Your task to perform on an android device: turn on notifications settings in the gmail app Image 0: 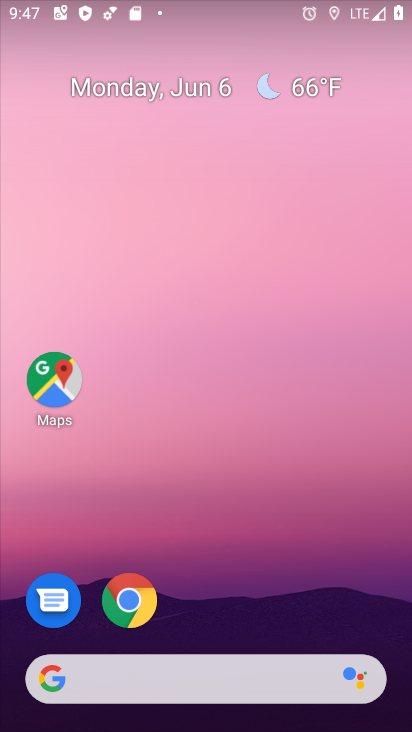
Step 0: drag from (36, 684) to (285, 183)
Your task to perform on an android device: turn on notifications settings in the gmail app Image 1: 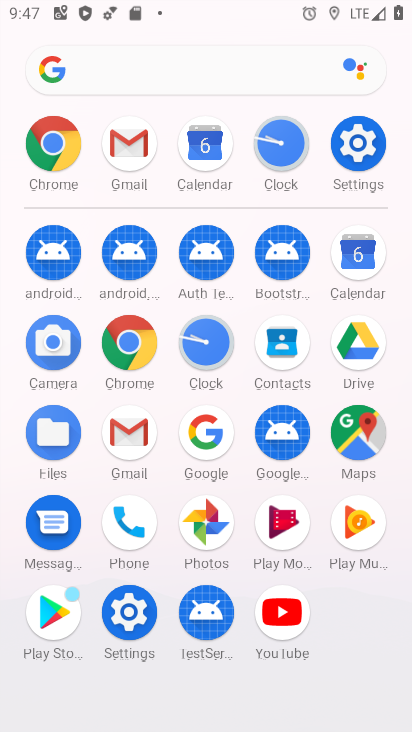
Step 1: click (129, 146)
Your task to perform on an android device: turn on notifications settings in the gmail app Image 2: 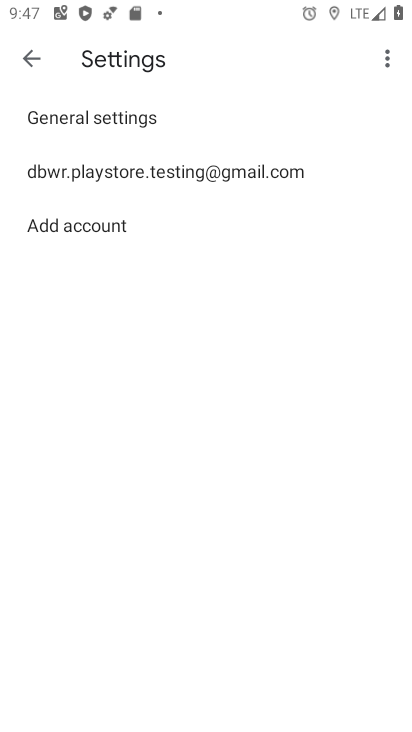
Step 2: click (137, 175)
Your task to perform on an android device: turn on notifications settings in the gmail app Image 3: 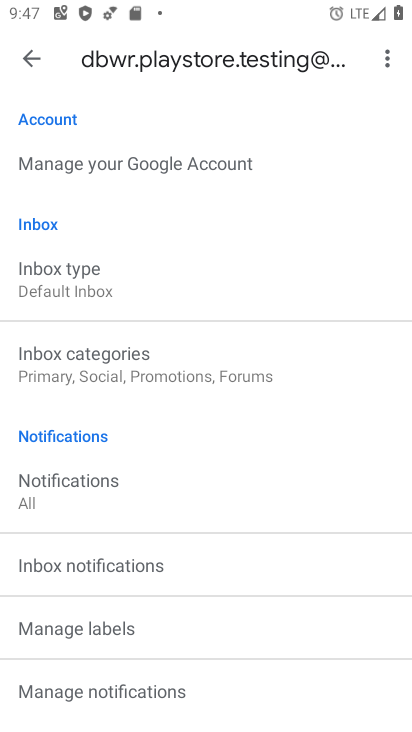
Step 3: click (139, 695)
Your task to perform on an android device: turn on notifications settings in the gmail app Image 4: 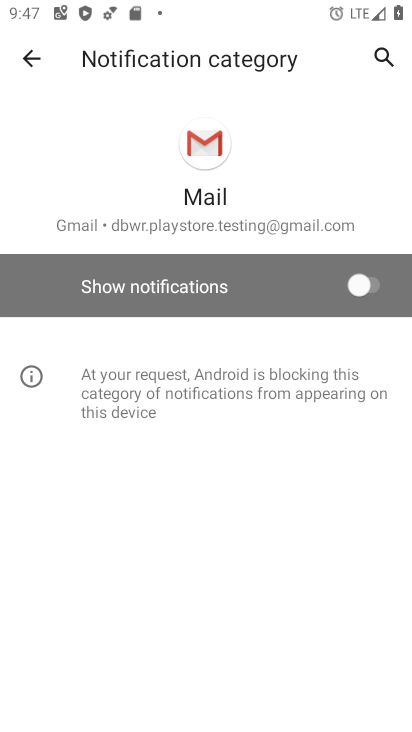
Step 4: click (355, 300)
Your task to perform on an android device: turn on notifications settings in the gmail app Image 5: 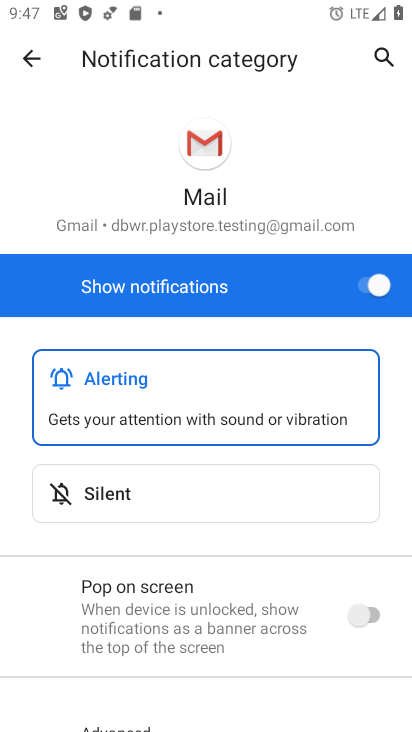
Step 5: task complete